Your task to perform on an android device: What's the weather going to be this weekend? Image 0: 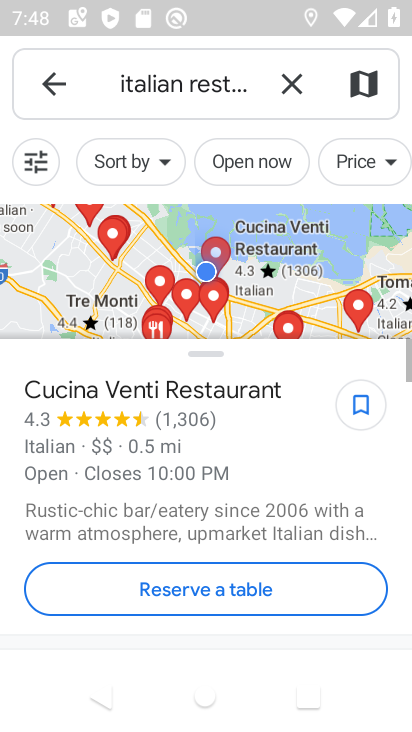
Step 0: press back button
Your task to perform on an android device: What's the weather going to be this weekend? Image 1: 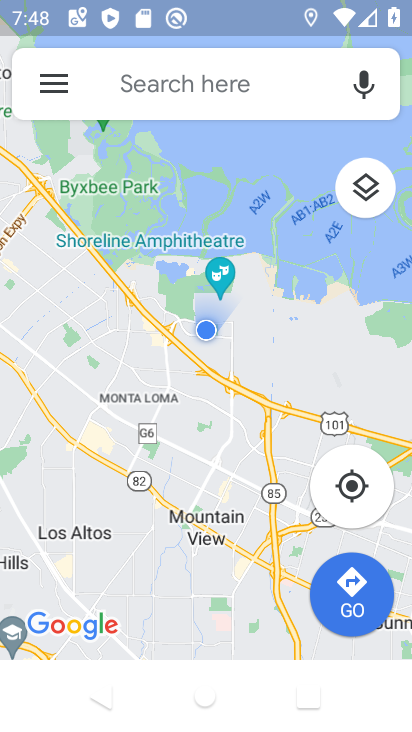
Step 1: press back button
Your task to perform on an android device: What's the weather going to be this weekend? Image 2: 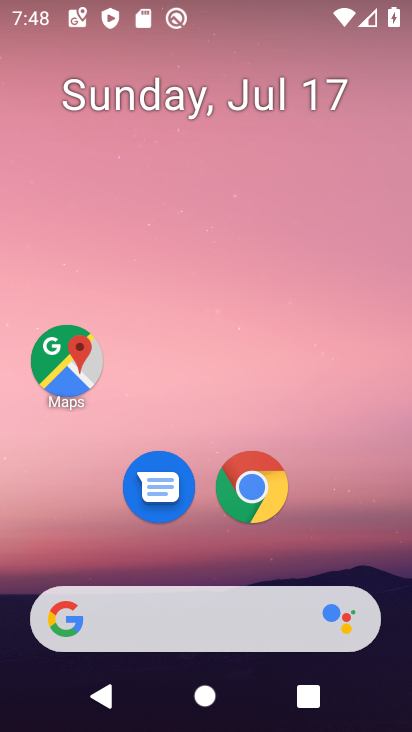
Step 2: drag from (208, 517) to (207, 19)
Your task to perform on an android device: What's the weather going to be this weekend? Image 3: 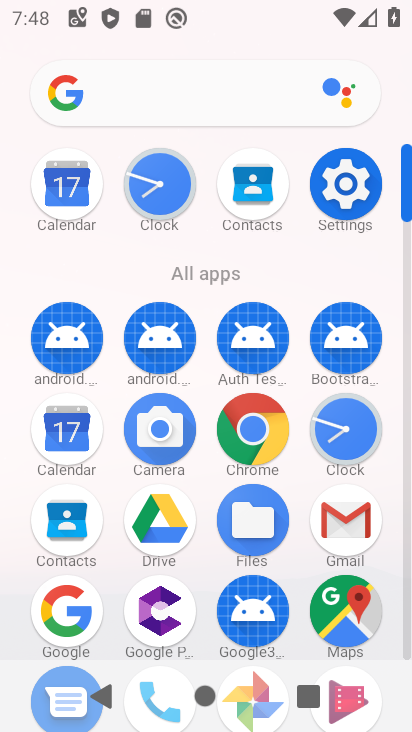
Step 3: click (148, 92)
Your task to perform on an android device: What's the weather going to be this weekend? Image 4: 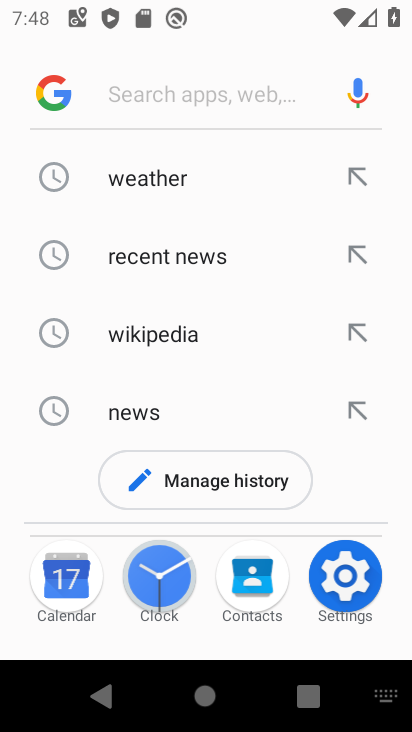
Step 4: click (134, 168)
Your task to perform on an android device: What's the weather going to be this weekend? Image 5: 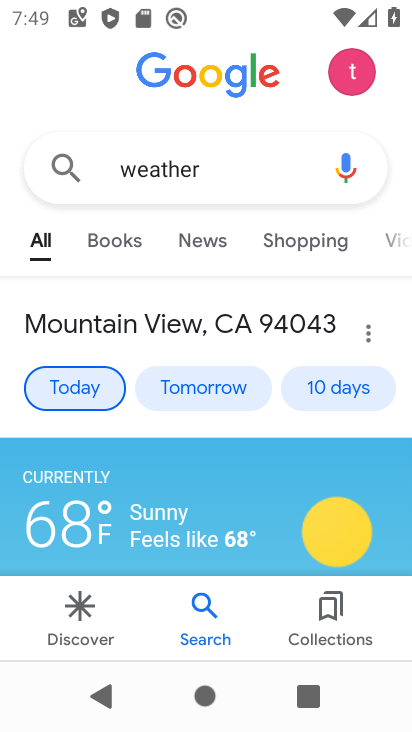
Step 5: click (335, 396)
Your task to perform on an android device: What's the weather going to be this weekend? Image 6: 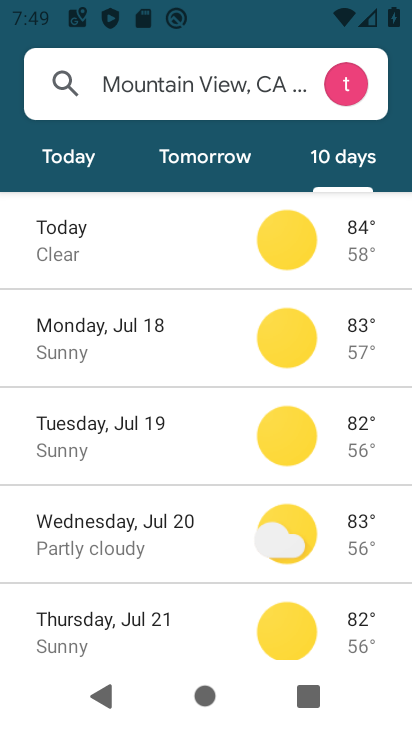
Step 6: task complete